Your task to perform on an android device: Show me popular games on the Play Store Image 0: 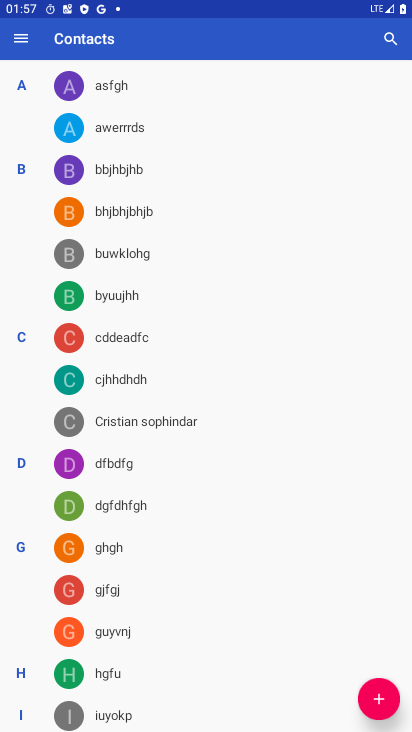
Step 0: press home button
Your task to perform on an android device: Show me popular games on the Play Store Image 1: 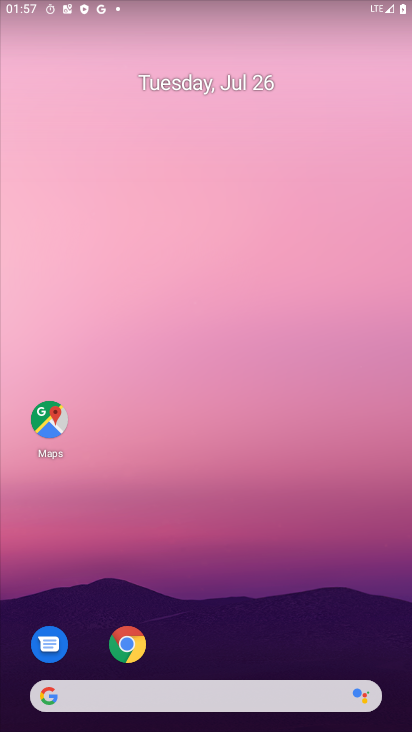
Step 1: drag from (234, 625) to (246, 62)
Your task to perform on an android device: Show me popular games on the Play Store Image 2: 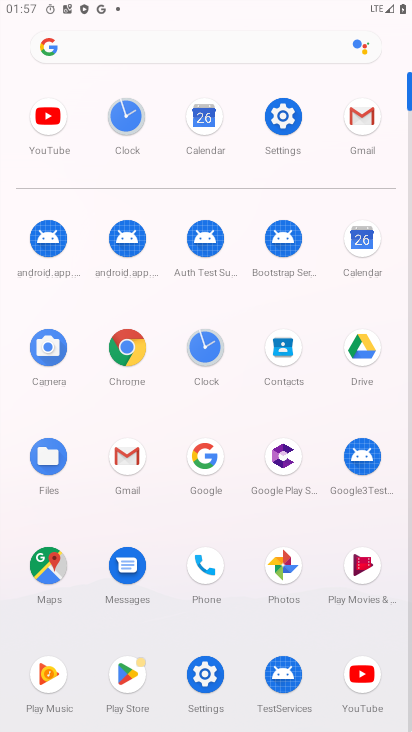
Step 2: click (123, 671)
Your task to perform on an android device: Show me popular games on the Play Store Image 3: 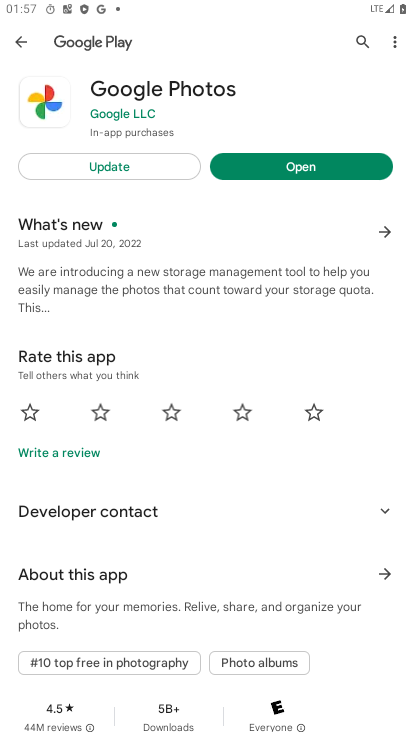
Step 3: click (28, 46)
Your task to perform on an android device: Show me popular games on the Play Store Image 4: 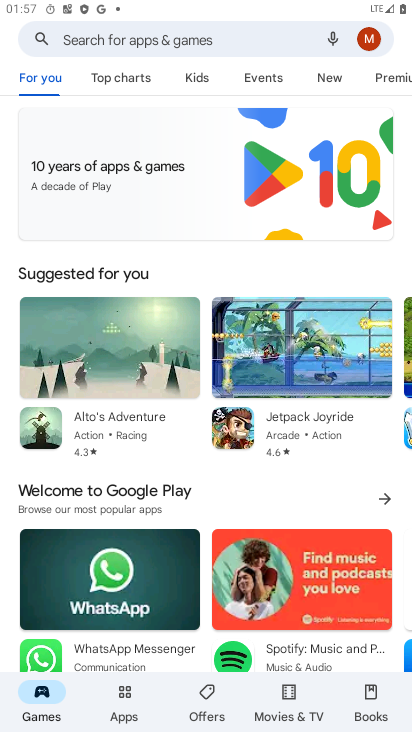
Step 4: drag from (161, 412) to (155, 541)
Your task to perform on an android device: Show me popular games on the Play Store Image 5: 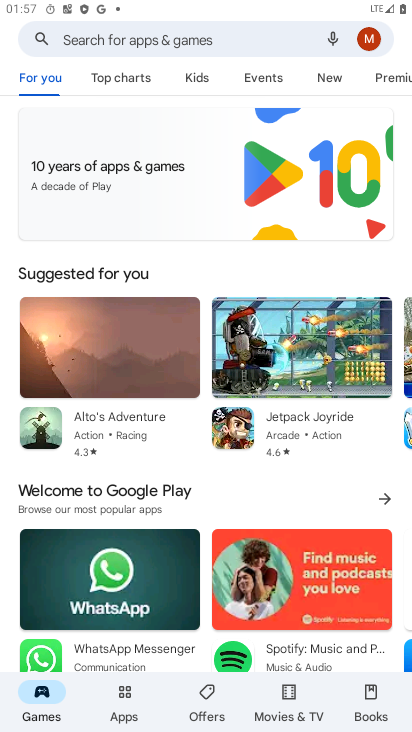
Step 5: drag from (167, 534) to (168, 286)
Your task to perform on an android device: Show me popular games on the Play Store Image 6: 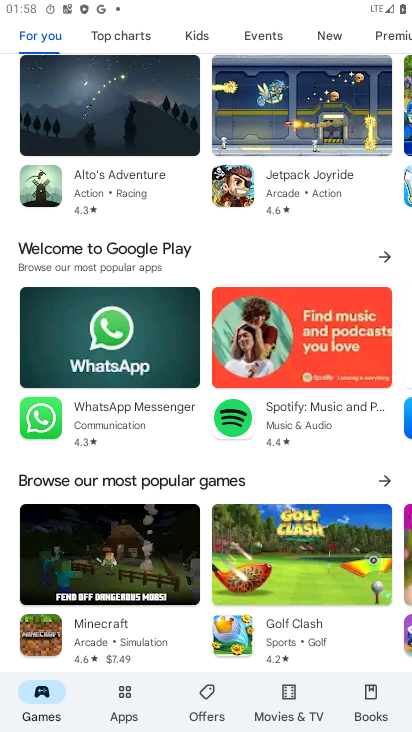
Step 6: click (204, 487)
Your task to perform on an android device: Show me popular games on the Play Store Image 7: 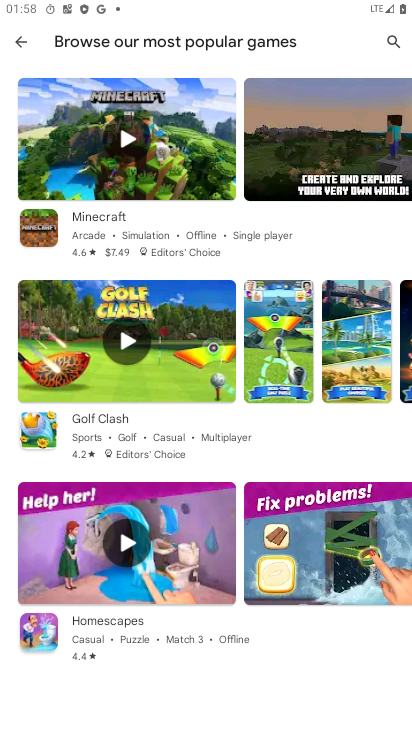
Step 7: task complete